Your task to perform on an android device: Open Google Chrome and open the bookmarks view Image 0: 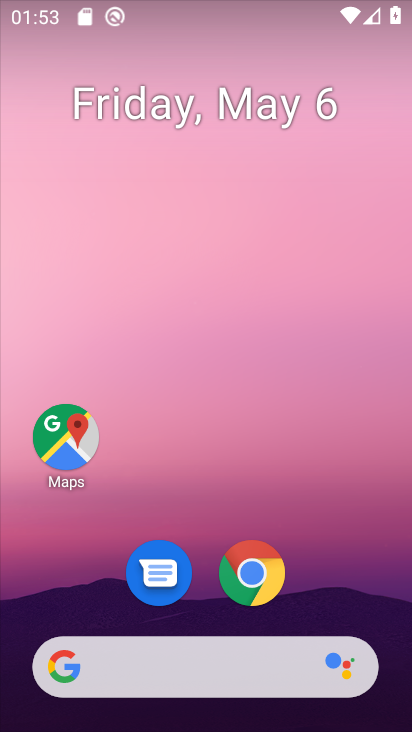
Step 0: drag from (322, 598) to (343, 225)
Your task to perform on an android device: Open Google Chrome and open the bookmarks view Image 1: 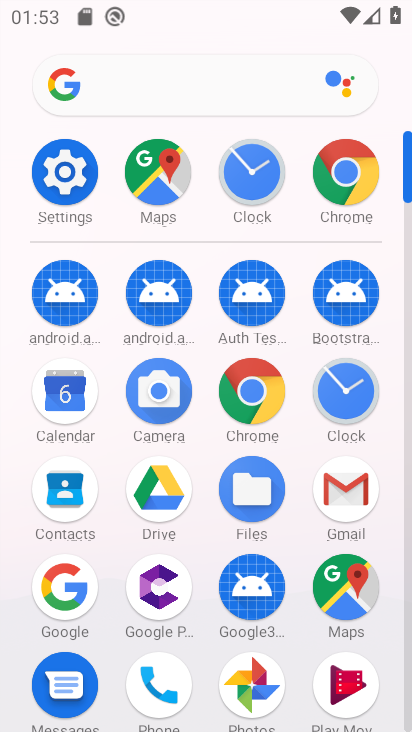
Step 1: click (235, 399)
Your task to perform on an android device: Open Google Chrome and open the bookmarks view Image 2: 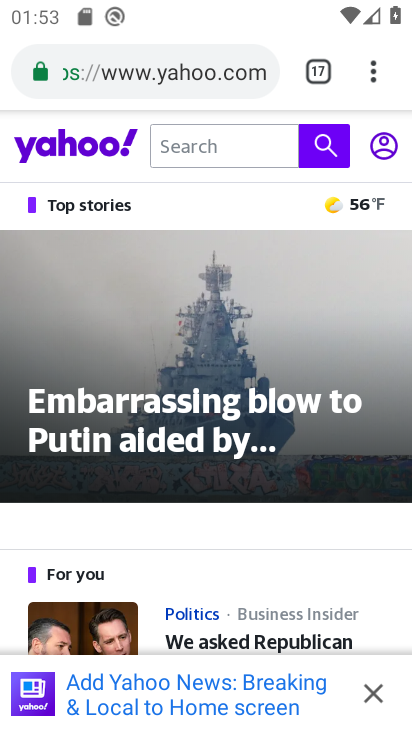
Step 2: click (359, 73)
Your task to perform on an android device: Open Google Chrome and open the bookmarks view Image 3: 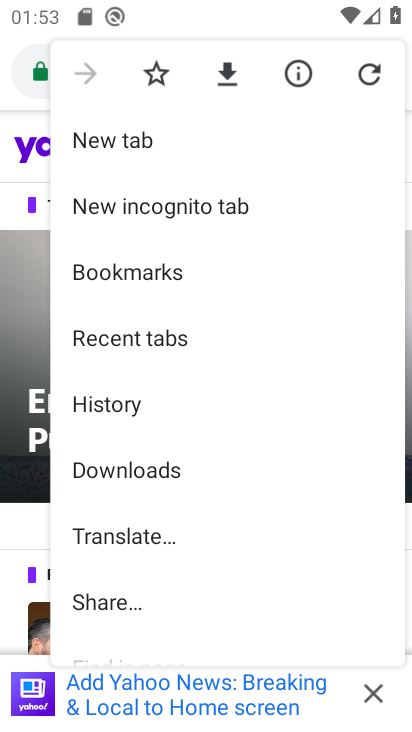
Step 3: click (166, 283)
Your task to perform on an android device: Open Google Chrome and open the bookmarks view Image 4: 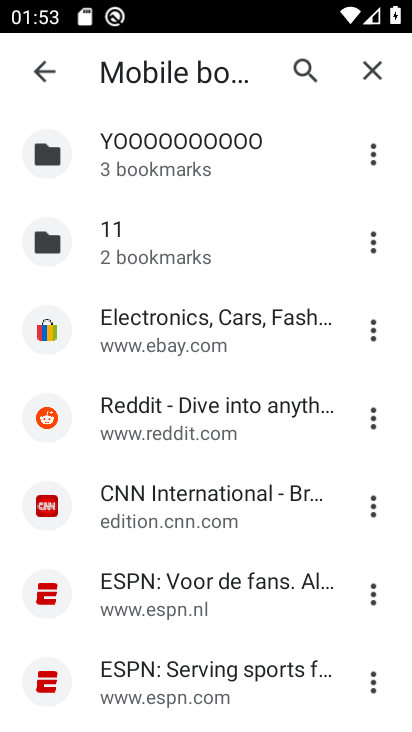
Step 4: task complete